Your task to perform on an android device: Open my contact list Image 0: 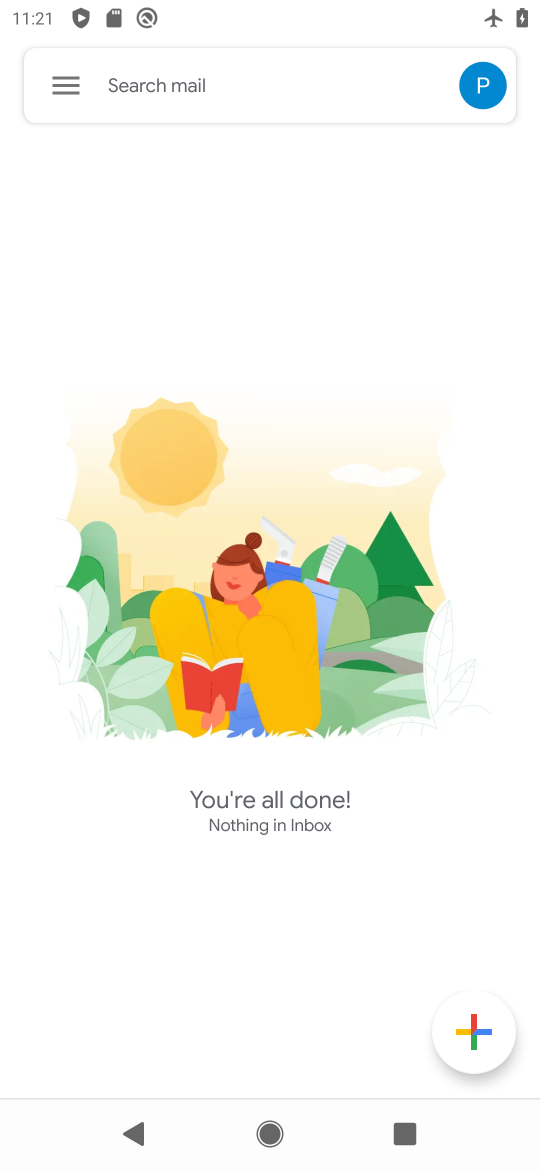
Step 0: press home button
Your task to perform on an android device: Open my contact list Image 1: 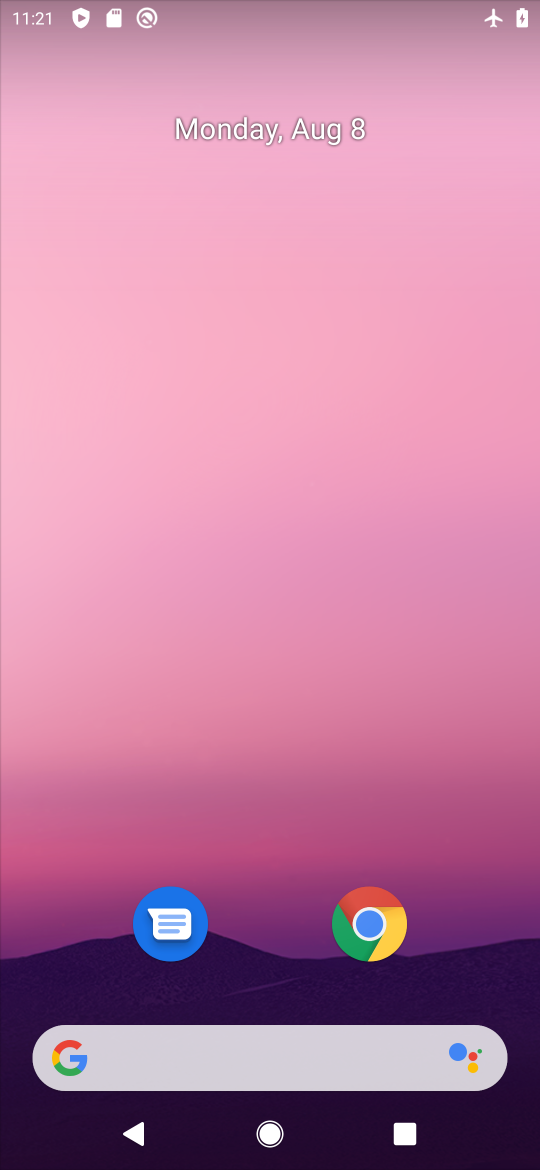
Step 1: drag from (277, 1016) to (263, 5)
Your task to perform on an android device: Open my contact list Image 2: 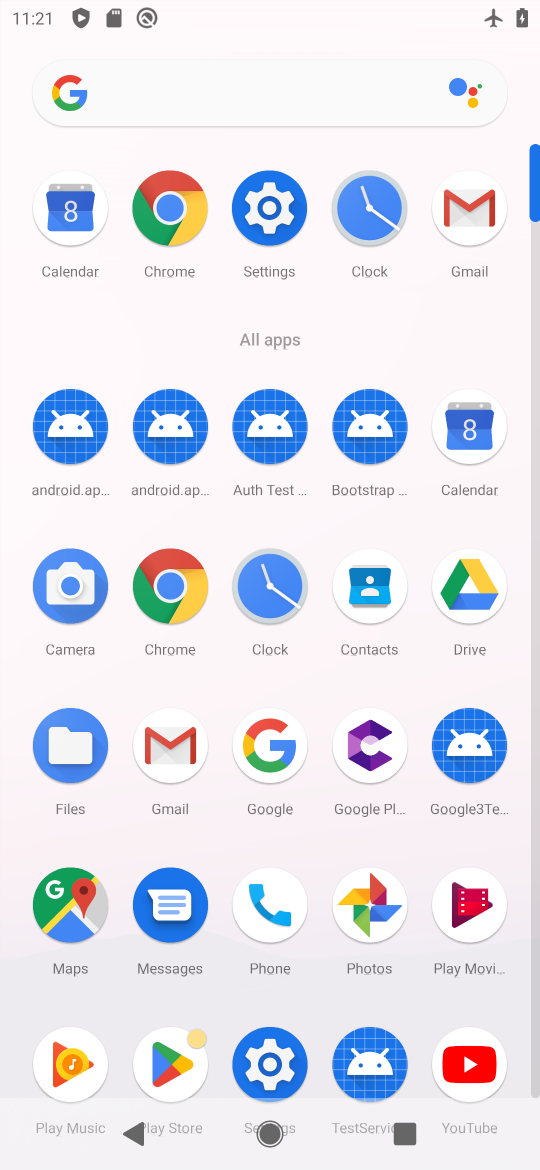
Step 2: click (258, 894)
Your task to perform on an android device: Open my contact list Image 3: 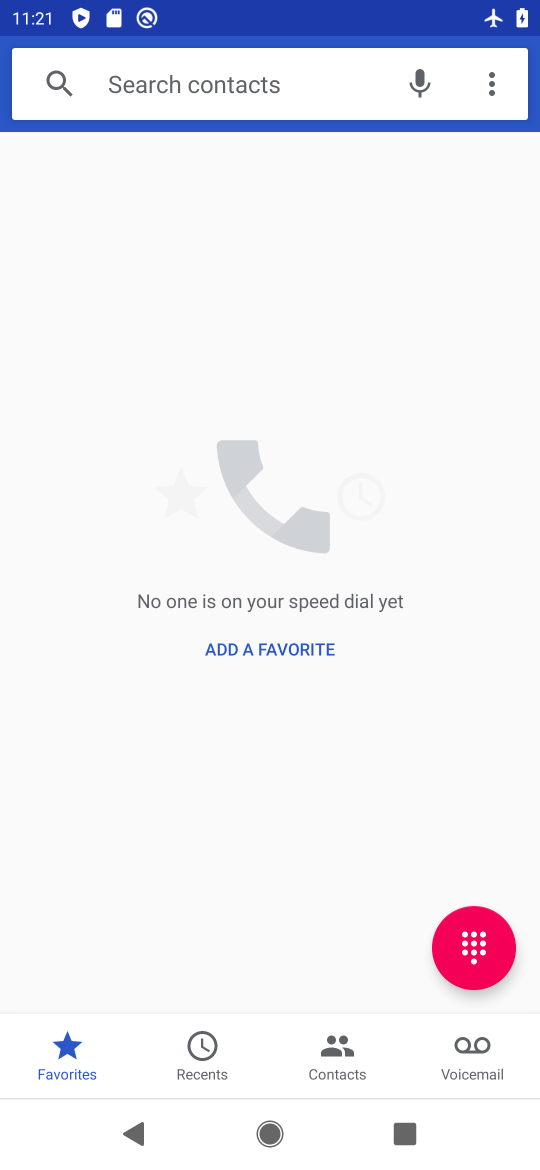
Step 3: click (326, 1039)
Your task to perform on an android device: Open my contact list Image 4: 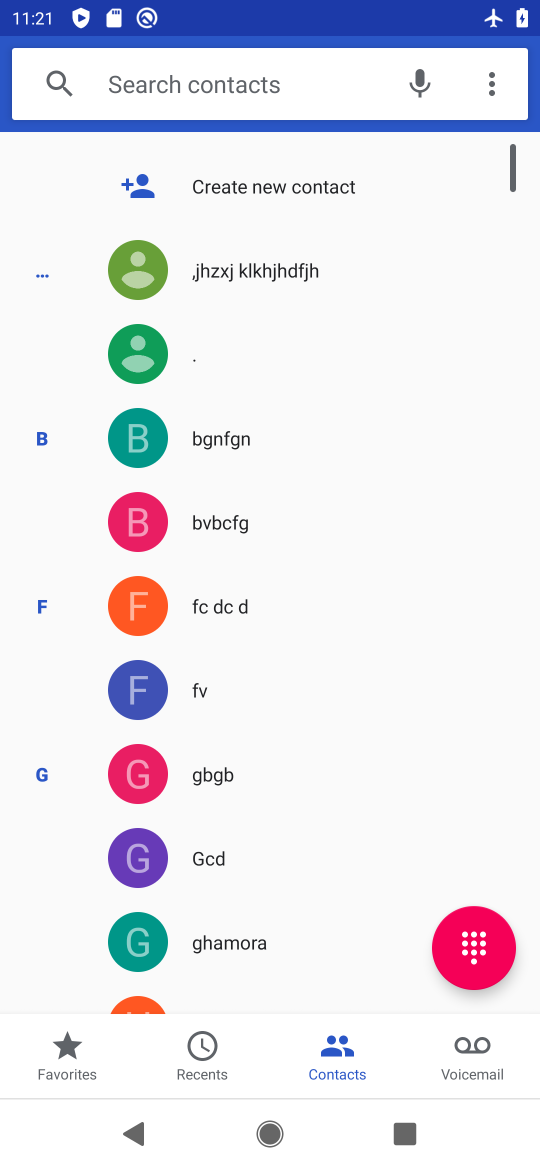
Step 4: task complete